Your task to perform on an android device: set an alarm Image 0: 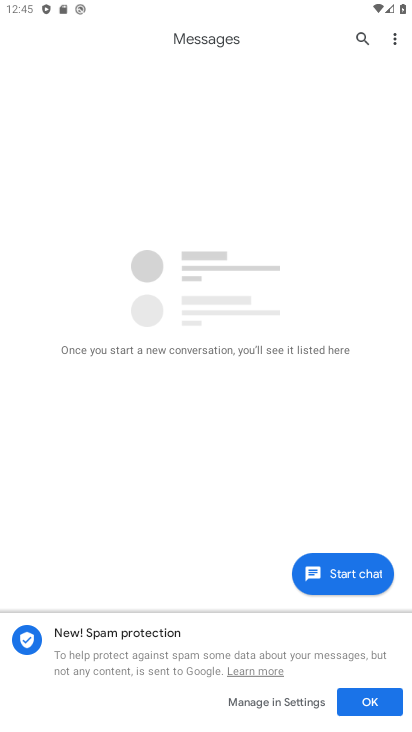
Step 0: press home button
Your task to perform on an android device: set an alarm Image 1: 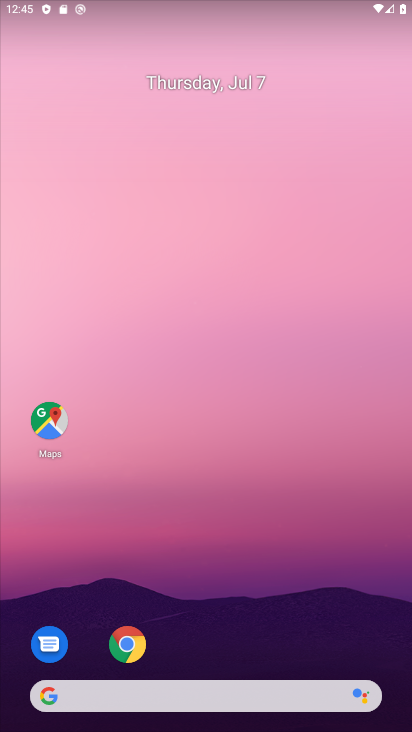
Step 1: drag from (43, 678) to (108, 372)
Your task to perform on an android device: set an alarm Image 2: 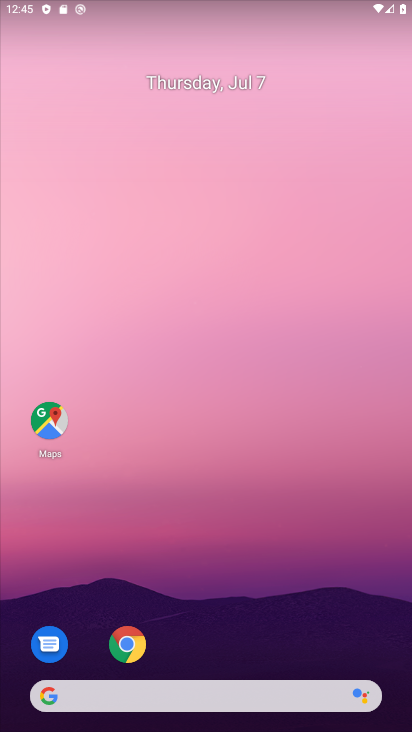
Step 2: drag from (20, 712) to (139, 52)
Your task to perform on an android device: set an alarm Image 3: 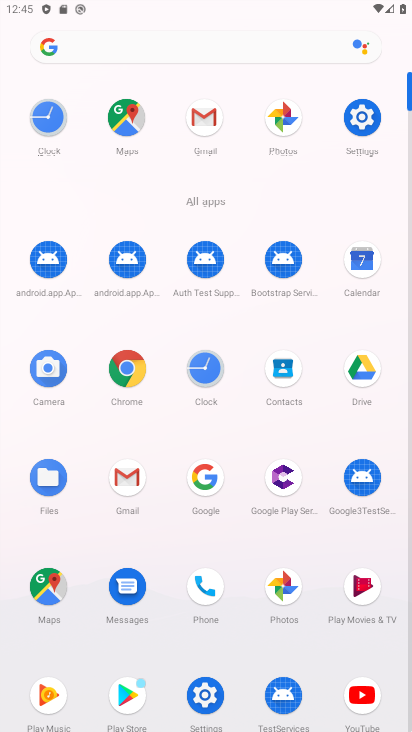
Step 3: click (211, 371)
Your task to perform on an android device: set an alarm Image 4: 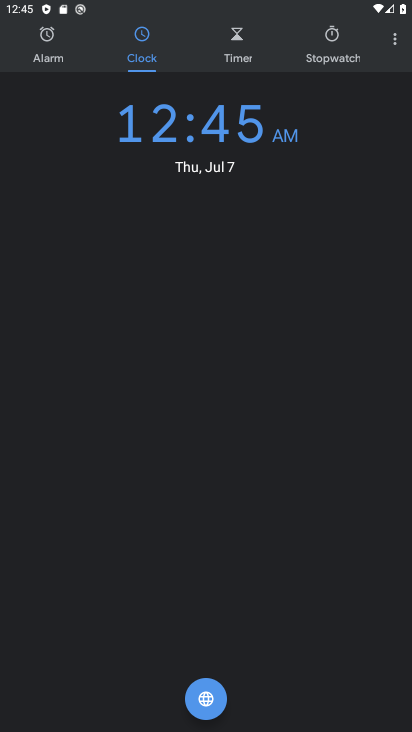
Step 4: click (48, 40)
Your task to perform on an android device: set an alarm Image 5: 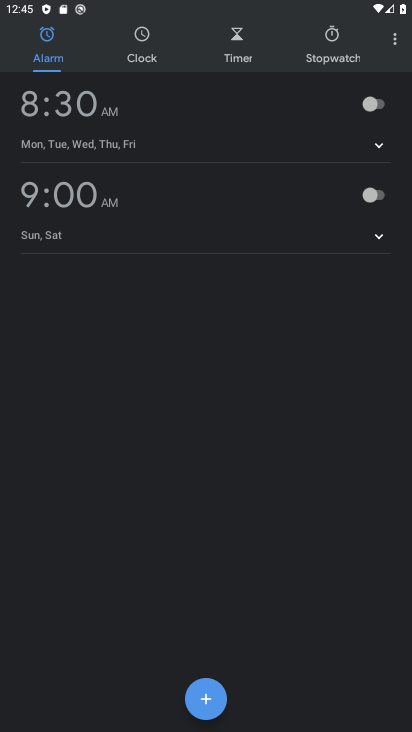
Step 5: click (372, 102)
Your task to perform on an android device: set an alarm Image 6: 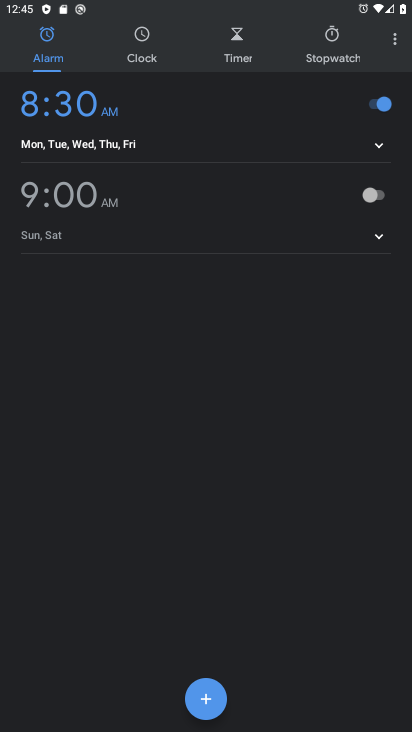
Step 6: task complete